Your task to perform on an android device: open chrome privacy settings Image 0: 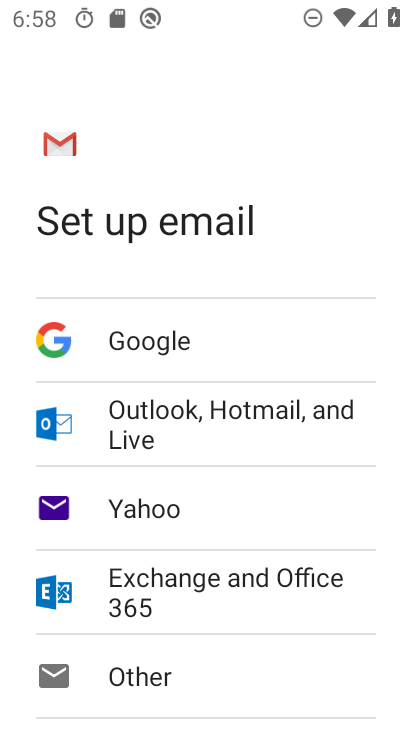
Step 0: press home button
Your task to perform on an android device: open chrome privacy settings Image 1: 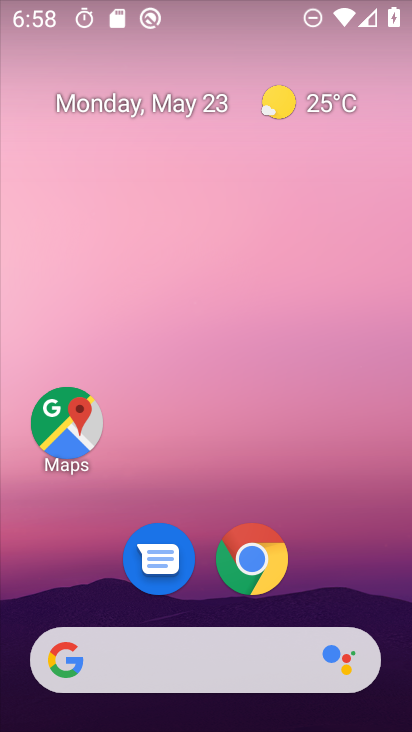
Step 1: drag from (388, 624) to (320, 52)
Your task to perform on an android device: open chrome privacy settings Image 2: 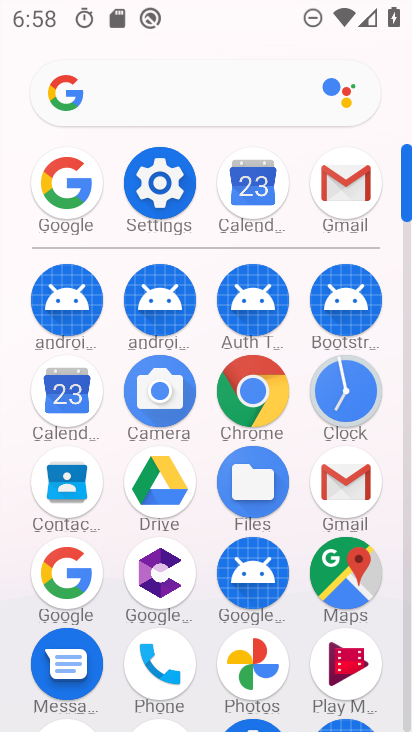
Step 2: click (239, 403)
Your task to perform on an android device: open chrome privacy settings Image 3: 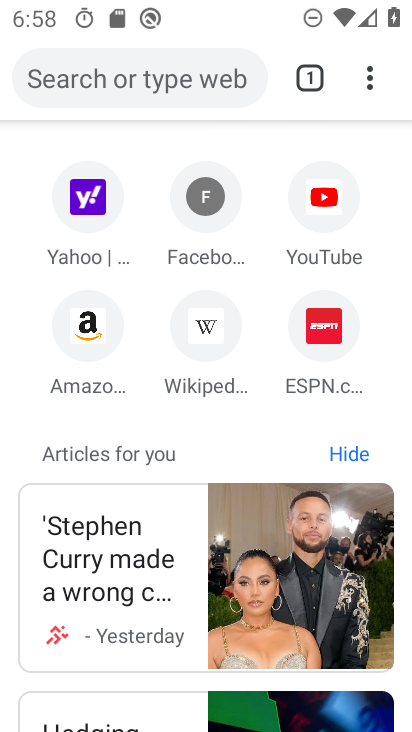
Step 3: click (373, 74)
Your task to perform on an android device: open chrome privacy settings Image 4: 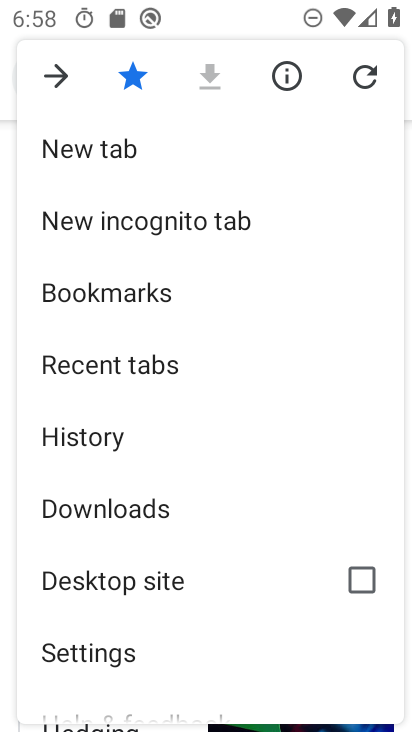
Step 4: click (123, 655)
Your task to perform on an android device: open chrome privacy settings Image 5: 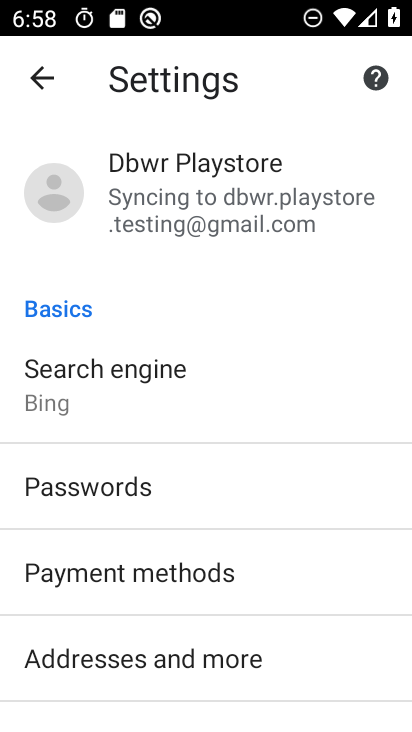
Step 5: drag from (111, 667) to (140, 203)
Your task to perform on an android device: open chrome privacy settings Image 6: 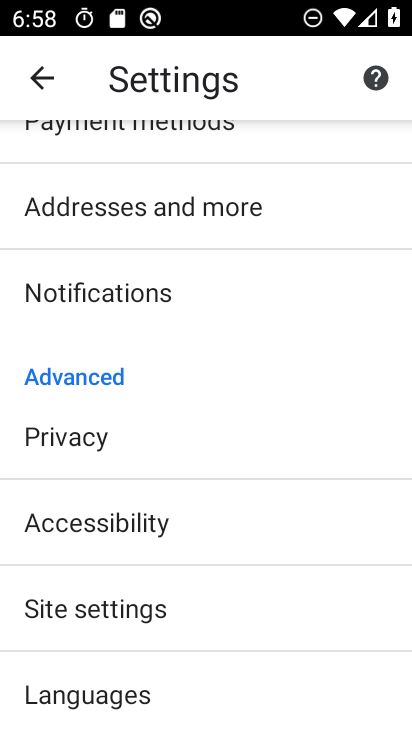
Step 6: click (108, 447)
Your task to perform on an android device: open chrome privacy settings Image 7: 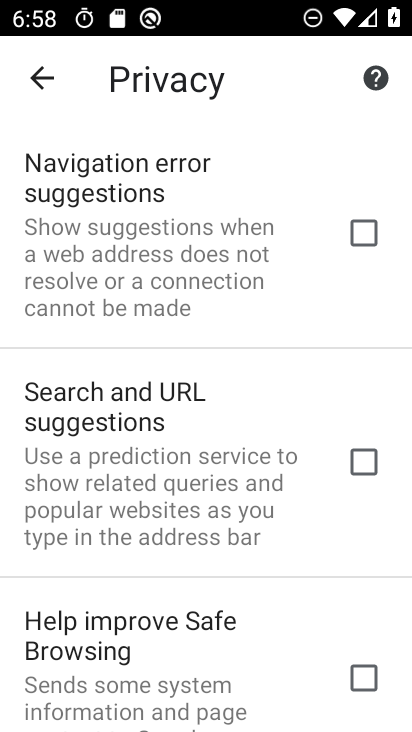
Step 7: task complete